Your task to perform on an android device: add a contact in the contacts app Image 0: 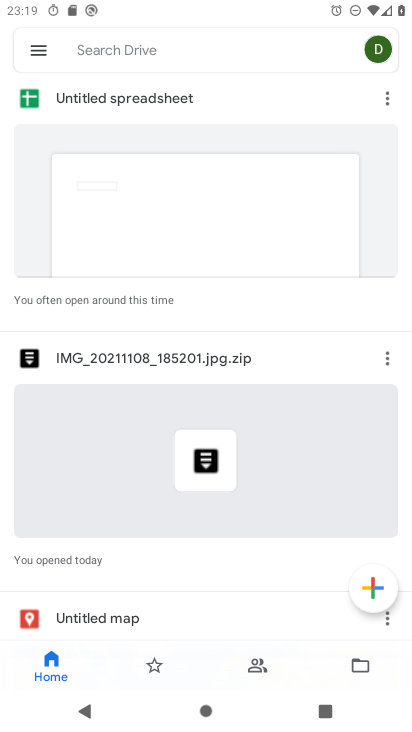
Step 0: press home button
Your task to perform on an android device: add a contact in the contacts app Image 1: 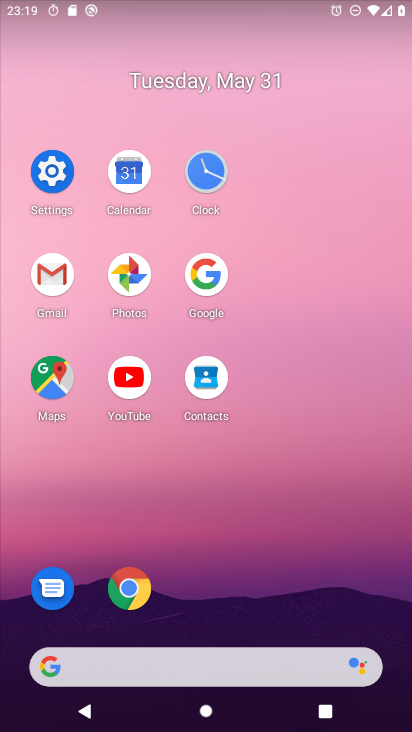
Step 1: click (203, 376)
Your task to perform on an android device: add a contact in the contacts app Image 2: 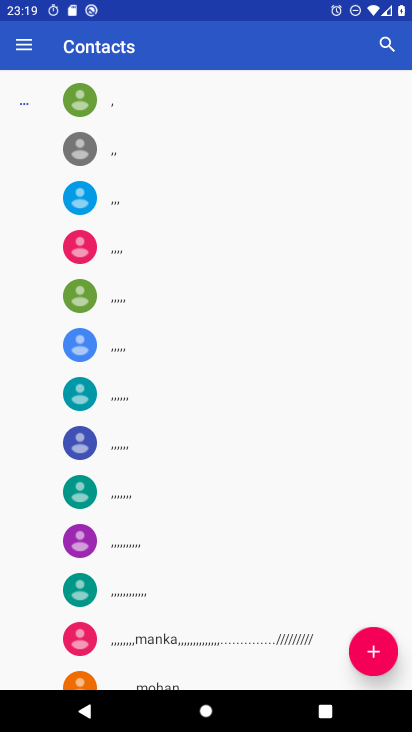
Step 2: click (379, 645)
Your task to perform on an android device: add a contact in the contacts app Image 3: 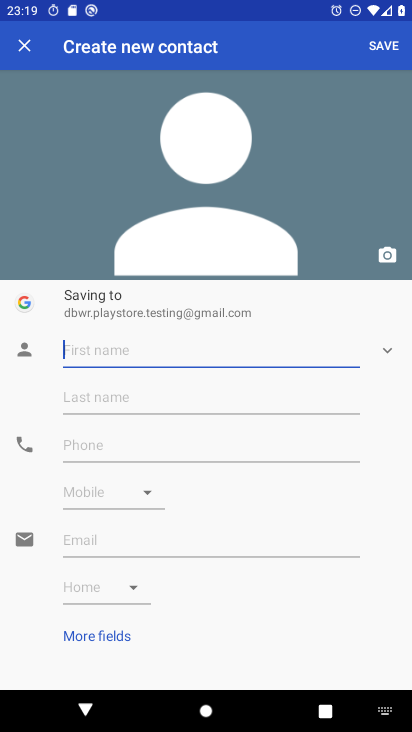
Step 3: type "uuifg"
Your task to perform on an android device: add a contact in the contacts app Image 4: 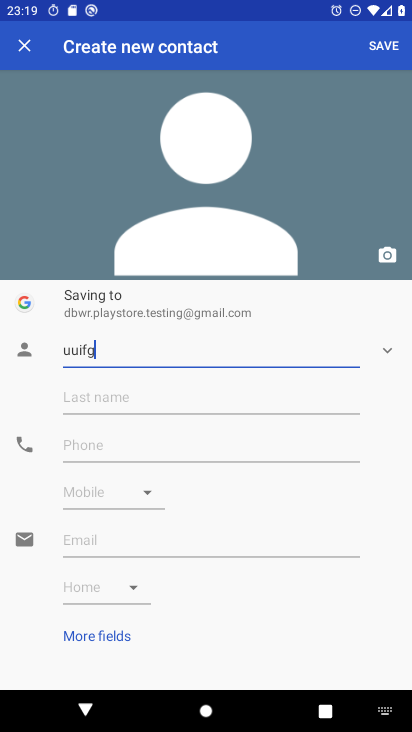
Step 4: click (155, 449)
Your task to perform on an android device: add a contact in the contacts app Image 5: 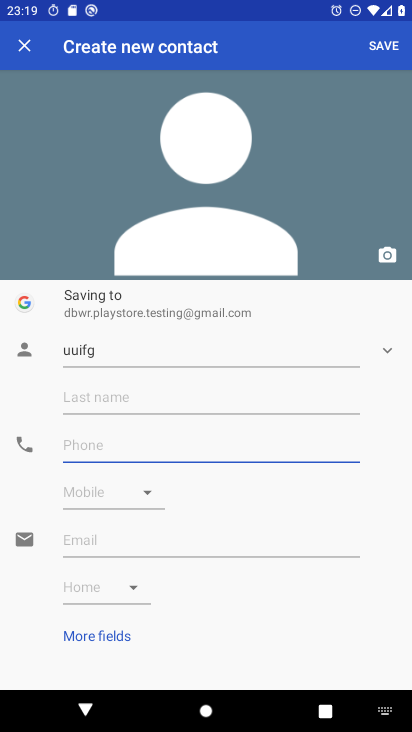
Step 5: type "9977661200"
Your task to perform on an android device: add a contact in the contacts app Image 6: 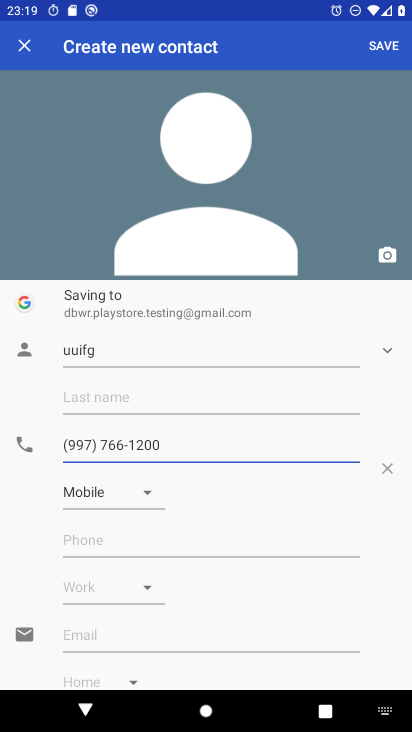
Step 6: click (391, 56)
Your task to perform on an android device: add a contact in the contacts app Image 7: 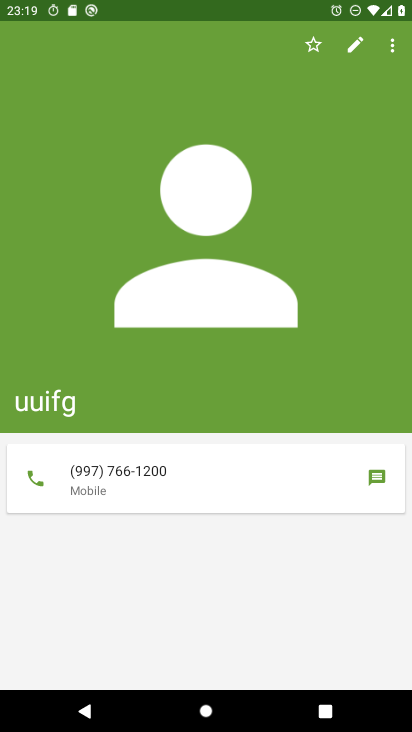
Step 7: task complete